Your task to perform on an android device: turn notification dots off Image 0: 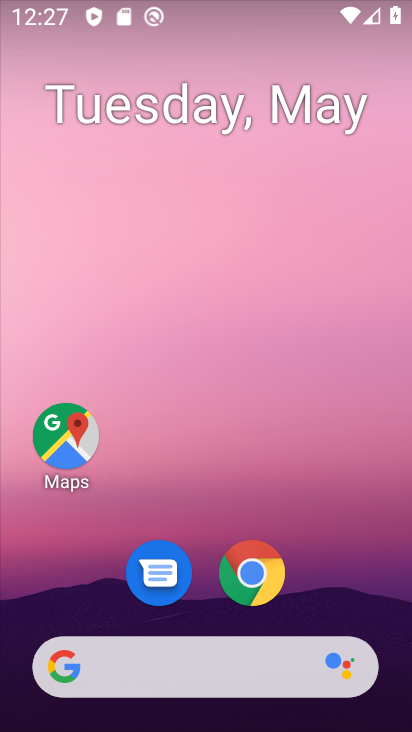
Step 0: drag from (359, 584) to (393, 93)
Your task to perform on an android device: turn notification dots off Image 1: 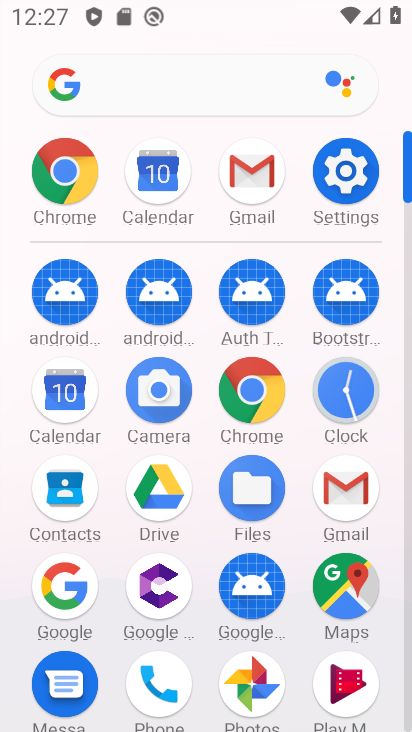
Step 1: click (353, 172)
Your task to perform on an android device: turn notification dots off Image 2: 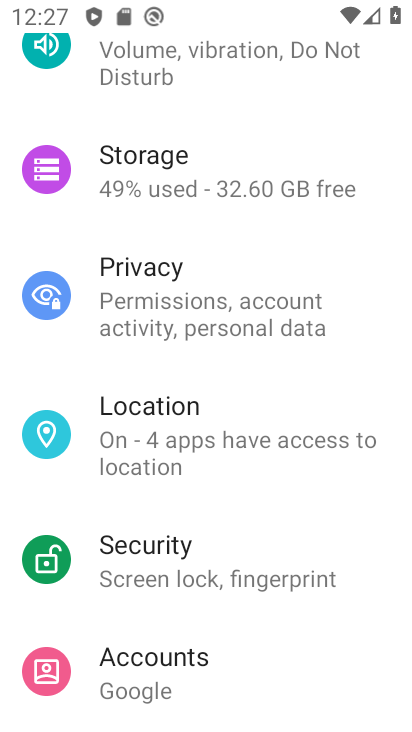
Step 2: drag from (350, 186) to (379, 678)
Your task to perform on an android device: turn notification dots off Image 3: 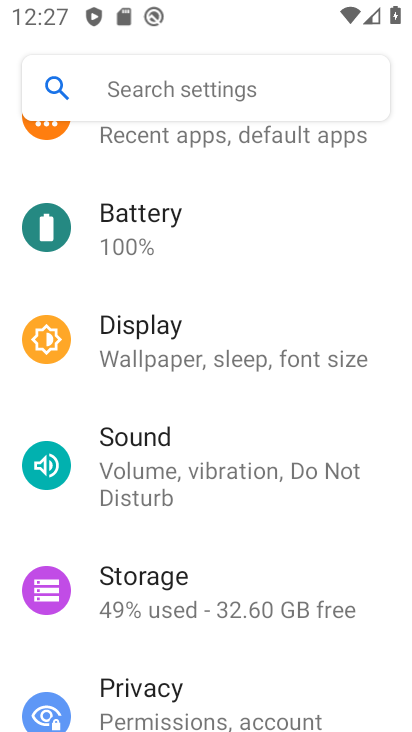
Step 3: drag from (318, 306) to (343, 660)
Your task to perform on an android device: turn notification dots off Image 4: 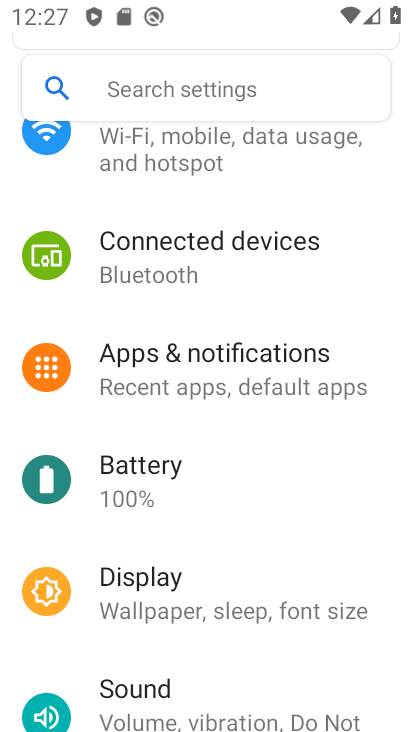
Step 4: drag from (244, 244) to (243, 587)
Your task to perform on an android device: turn notification dots off Image 5: 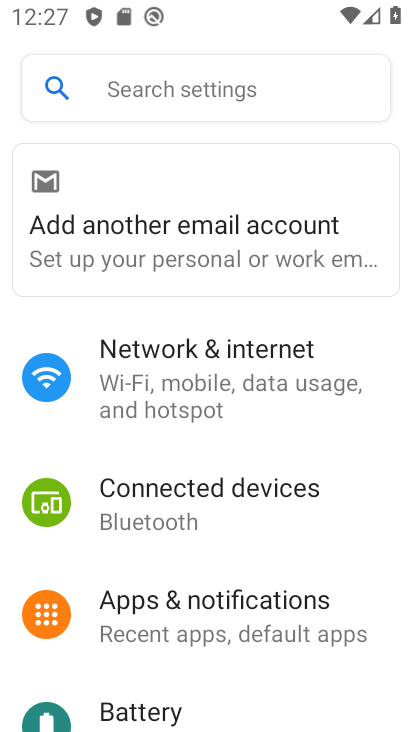
Step 5: click (273, 623)
Your task to perform on an android device: turn notification dots off Image 6: 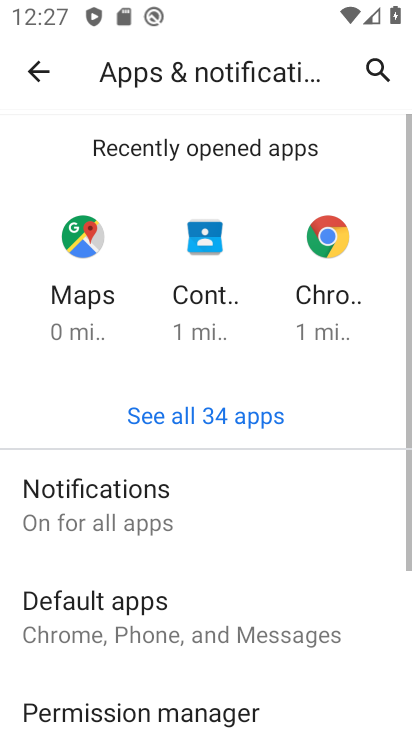
Step 6: drag from (276, 618) to (337, 263)
Your task to perform on an android device: turn notification dots off Image 7: 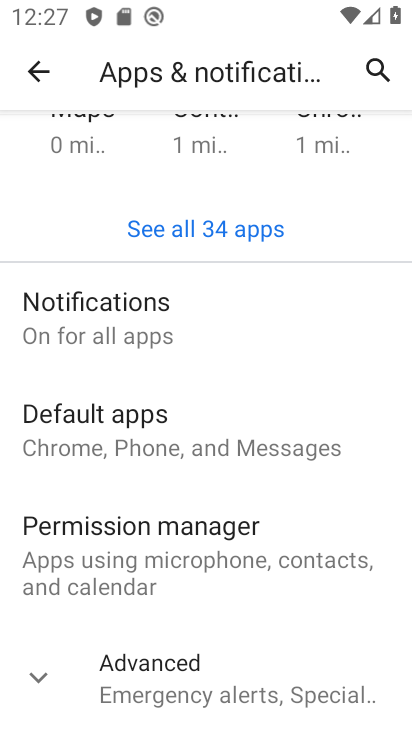
Step 7: click (160, 316)
Your task to perform on an android device: turn notification dots off Image 8: 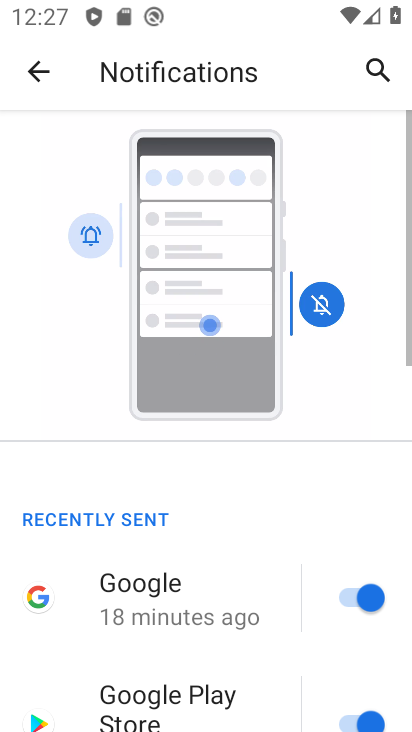
Step 8: drag from (245, 618) to (214, 184)
Your task to perform on an android device: turn notification dots off Image 9: 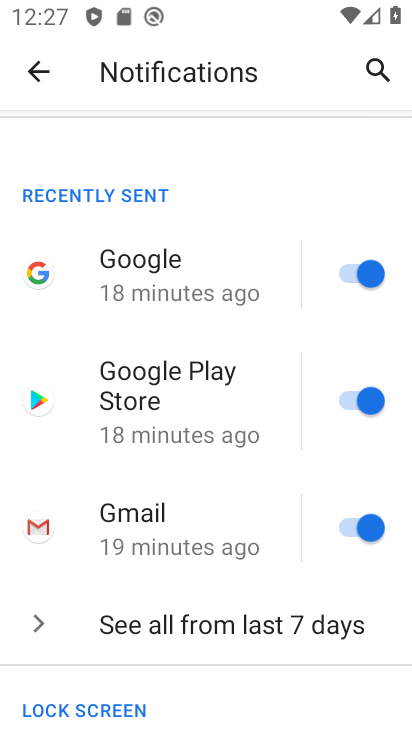
Step 9: drag from (244, 617) to (261, 137)
Your task to perform on an android device: turn notification dots off Image 10: 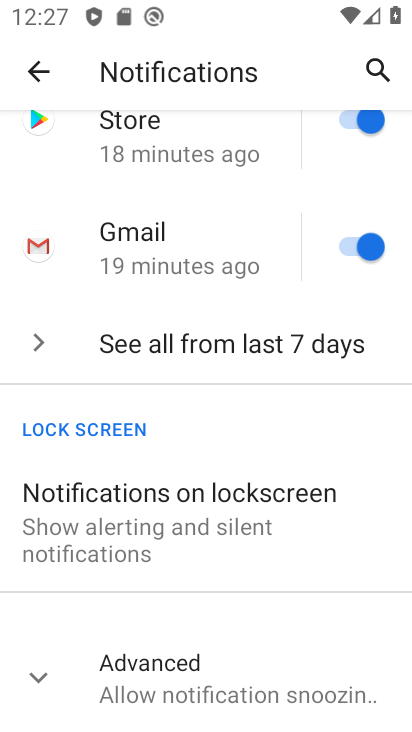
Step 10: drag from (242, 577) to (296, 168)
Your task to perform on an android device: turn notification dots off Image 11: 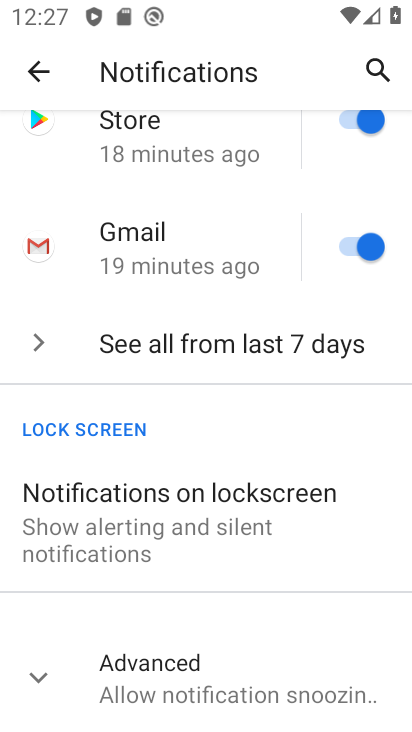
Step 11: click (253, 695)
Your task to perform on an android device: turn notification dots off Image 12: 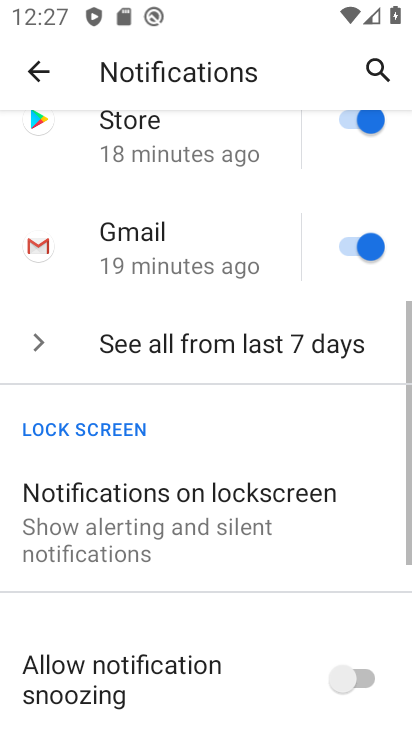
Step 12: task complete